Your task to perform on an android device: Open Reddit.com Image 0: 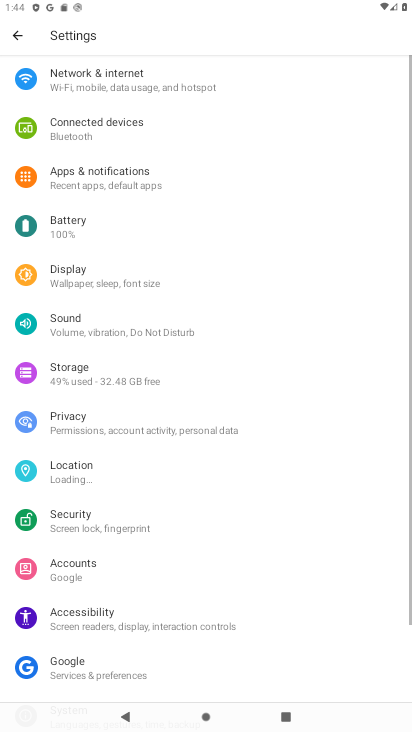
Step 0: press home button
Your task to perform on an android device: Open Reddit.com Image 1: 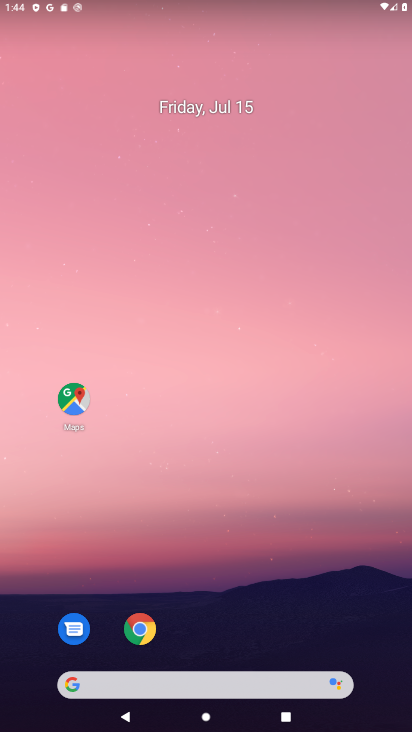
Step 1: click (140, 631)
Your task to perform on an android device: Open Reddit.com Image 2: 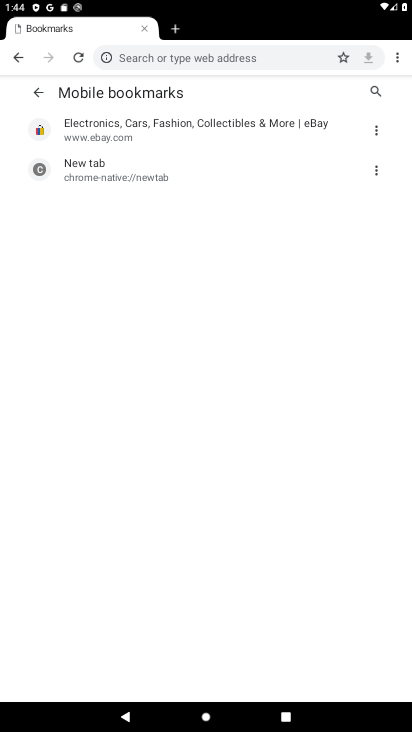
Step 2: click (15, 59)
Your task to perform on an android device: Open Reddit.com Image 3: 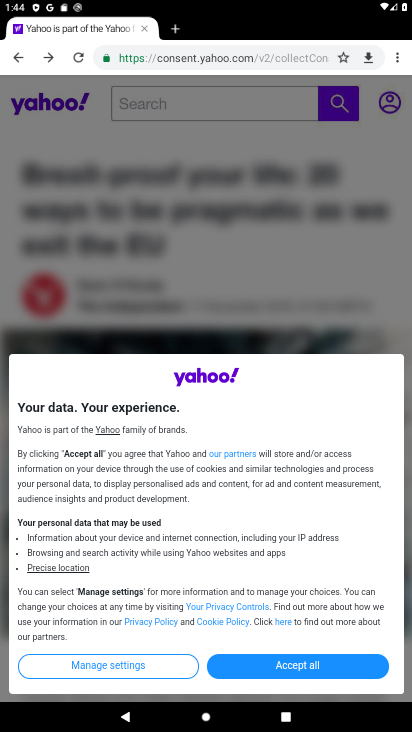
Step 3: click (154, 53)
Your task to perform on an android device: Open Reddit.com Image 4: 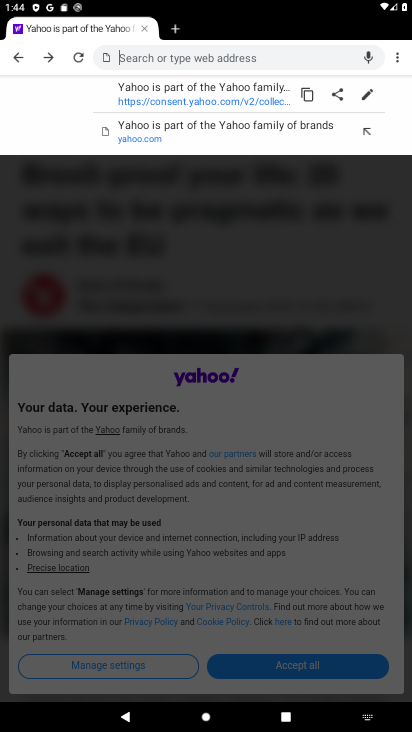
Step 4: type "www.reddit.com"
Your task to perform on an android device: Open Reddit.com Image 5: 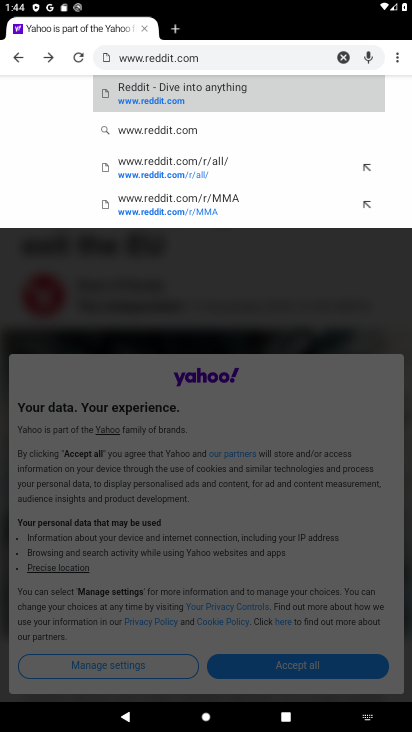
Step 5: click (149, 86)
Your task to perform on an android device: Open Reddit.com Image 6: 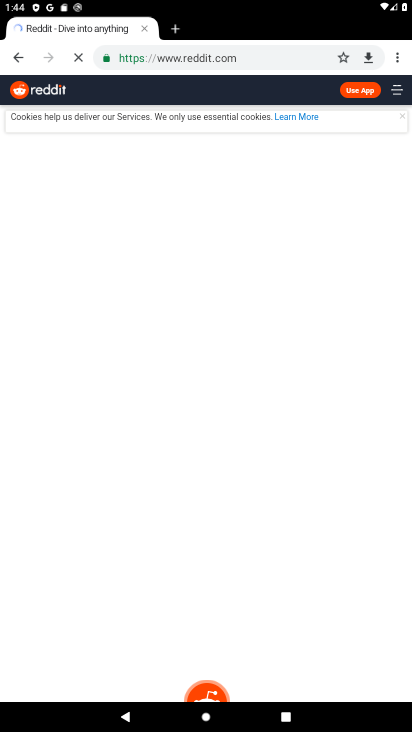
Step 6: task complete